Your task to perform on an android device: uninstall "YouTube Kids" Image 0: 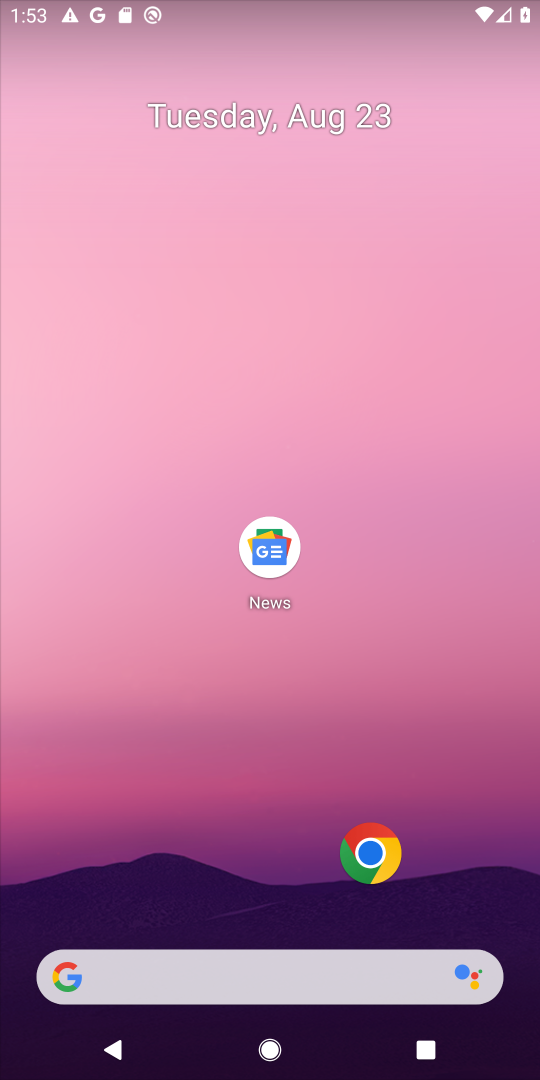
Step 0: drag from (533, 967) to (470, 98)
Your task to perform on an android device: uninstall "YouTube Kids" Image 1: 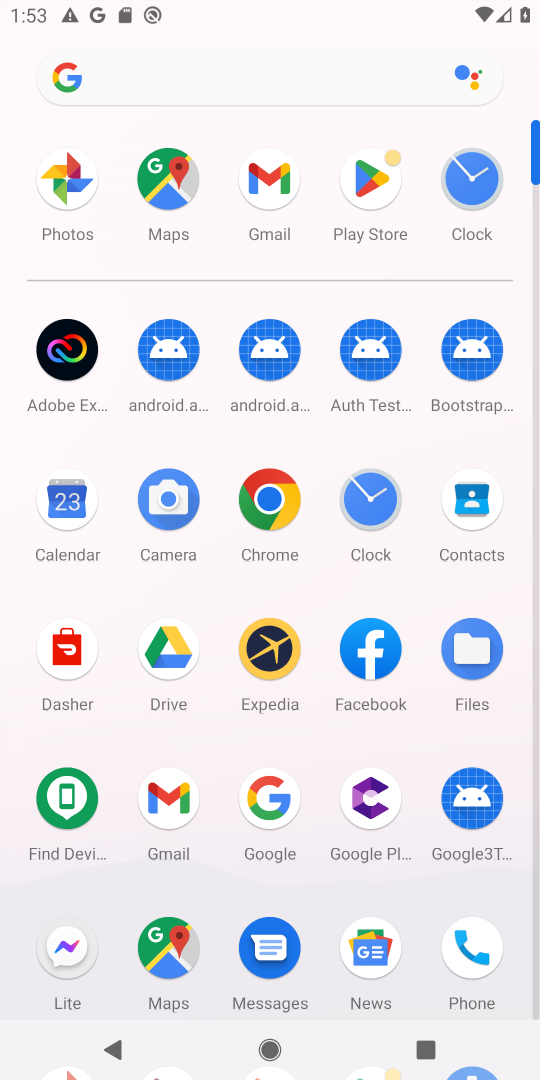
Step 1: click (536, 997)
Your task to perform on an android device: uninstall "YouTube Kids" Image 2: 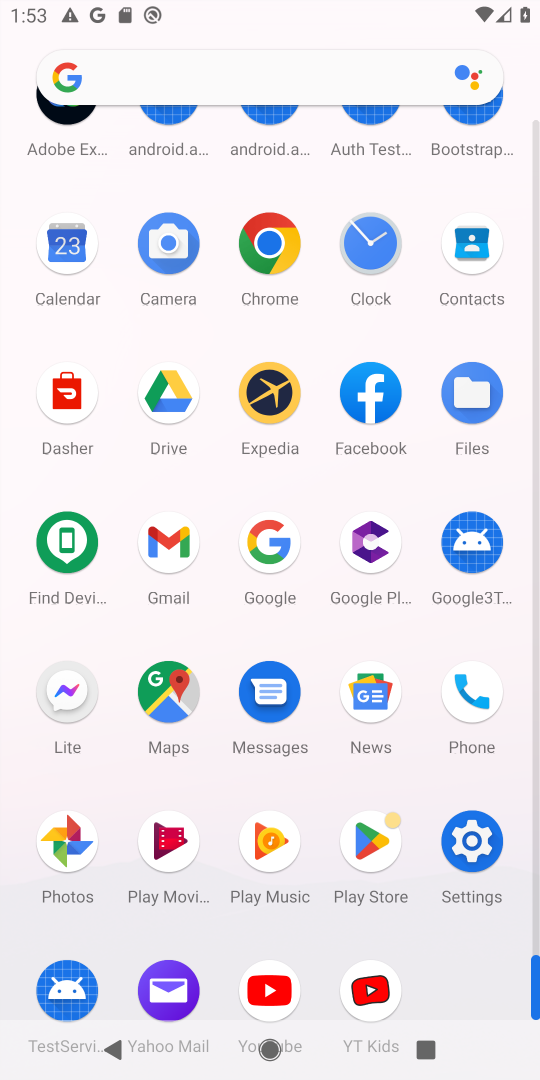
Step 2: click (375, 840)
Your task to perform on an android device: uninstall "YouTube Kids" Image 3: 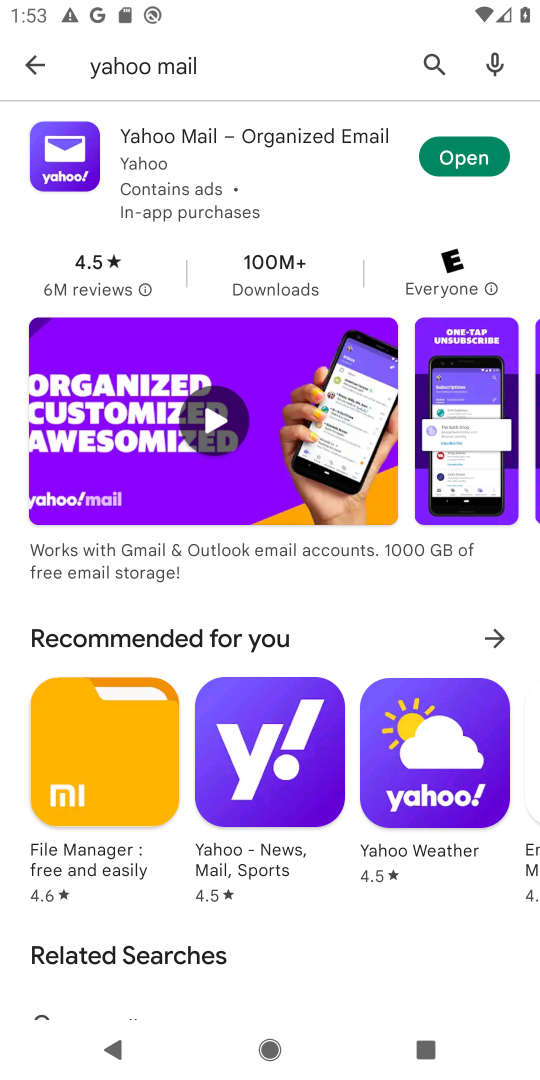
Step 3: click (430, 59)
Your task to perform on an android device: uninstall "YouTube Kids" Image 4: 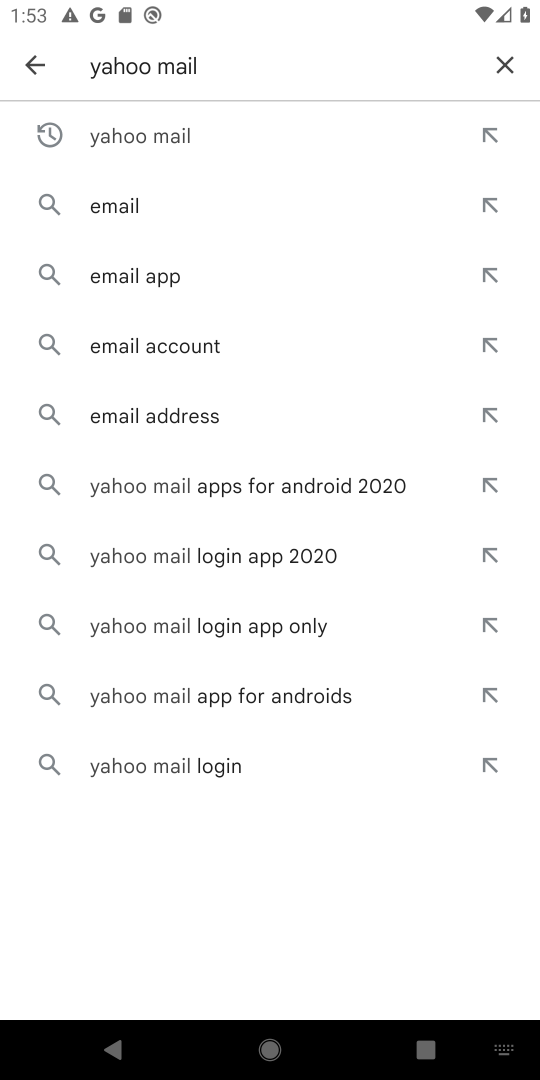
Step 4: click (508, 58)
Your task to perform on an android device: uninstall "YouTube Kids" Image 5: 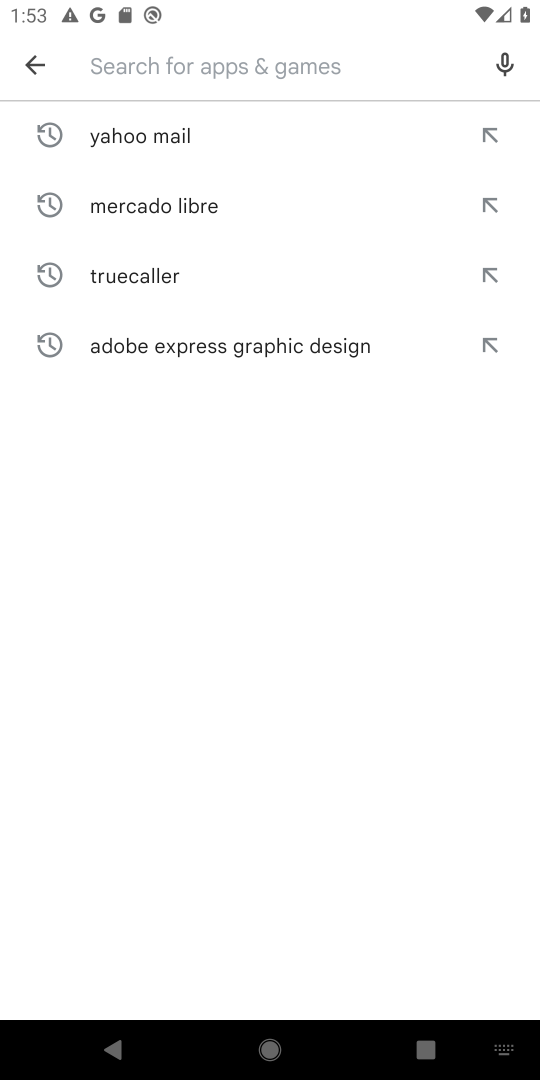
Step 5: type "YouTube Kids"
Your task to perform on an android device: uninstall "YouTube Kids" Image 6: 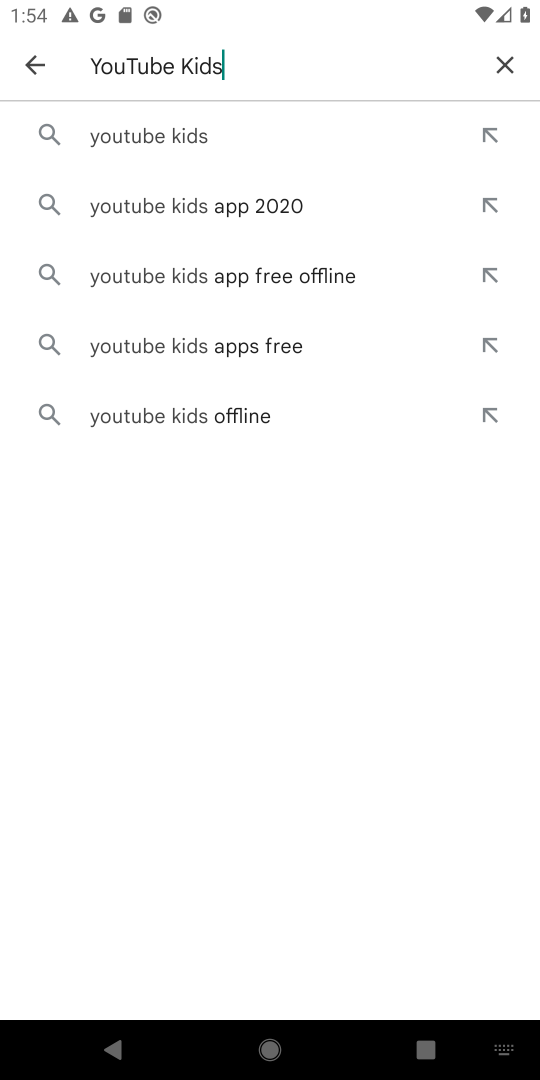
Step 6: click (149, 131)
Your task to perform on an android device: uninstall "YouTube Kids" Image 7: 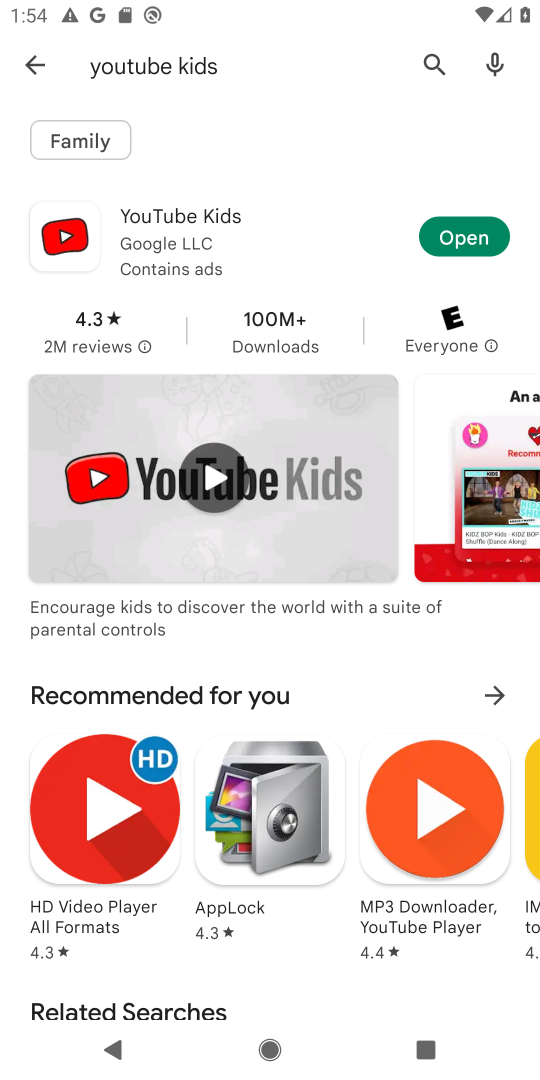
Step 7: click (146, 214)
Your task to perform on an android device: uninstall "YouTube Kids" Image 8: 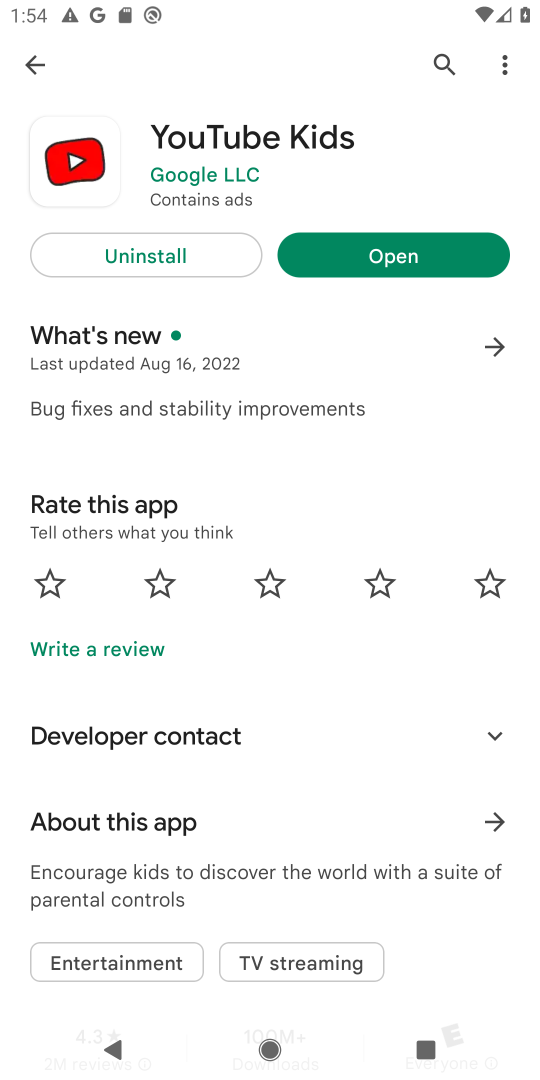
Step 8: click (146, 250)
Your task to perform on an android device: uninstall "YouTube Kids" Image 9: 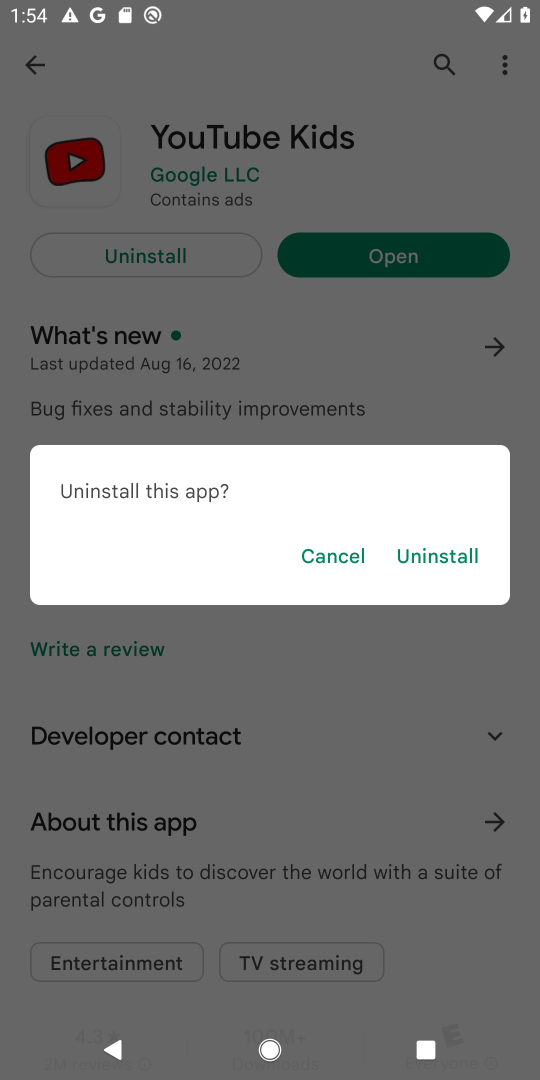
Step 9: click (431, 556)
Your task to perform on an android device: uninstall "YouTube Kids" Image 10: 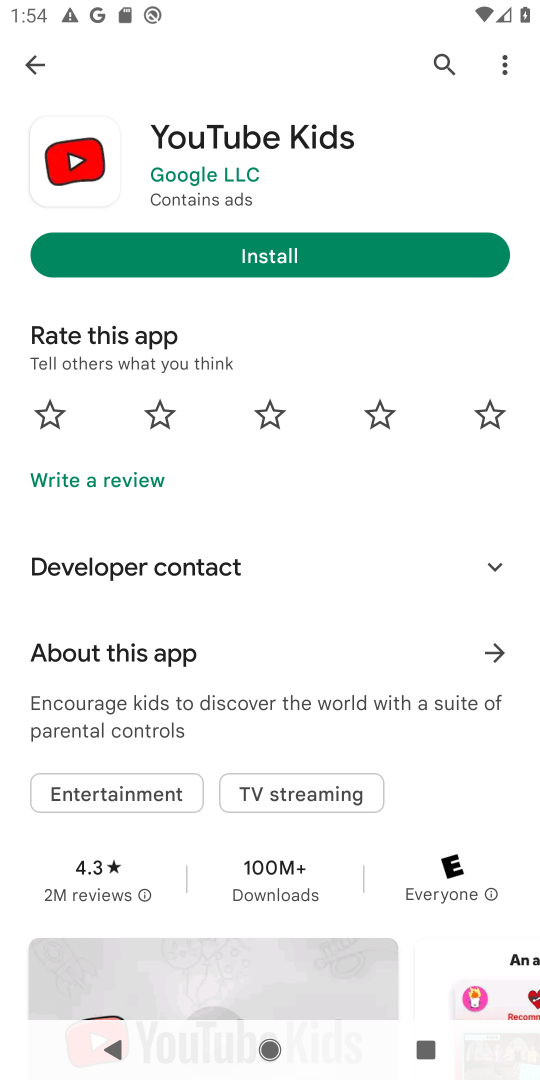
Step 10: task complete